Your task to perform on an android device: Go to Reddit.com Image 0: 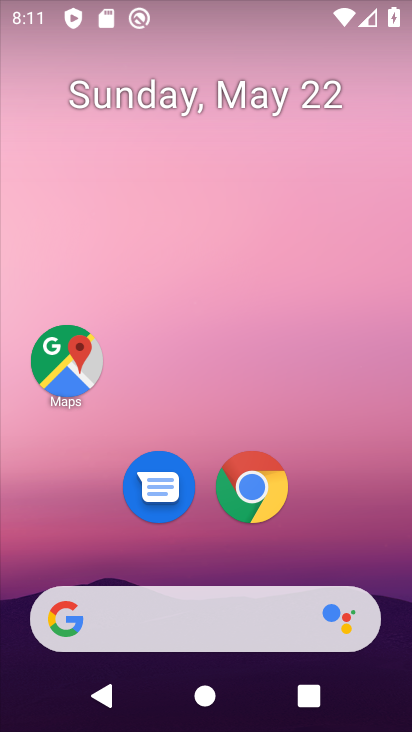
Step 0: click (133, 613)
Your task to perform on an android device: Go to Reddit.com Image 1: 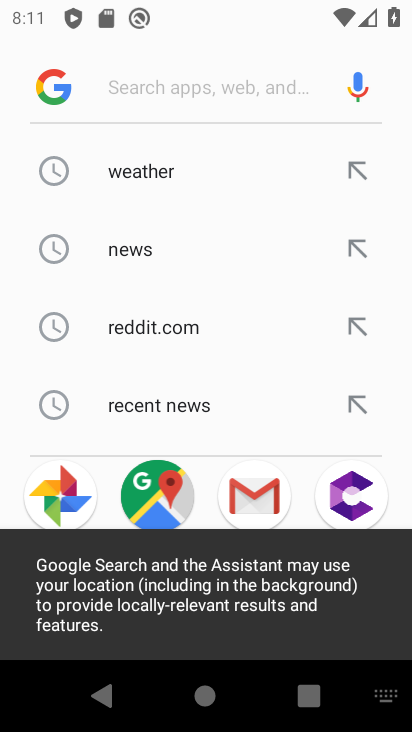
Step 1: click (254, 344)
Your task to perform on an android device: Go to Reddit.com Image 2: 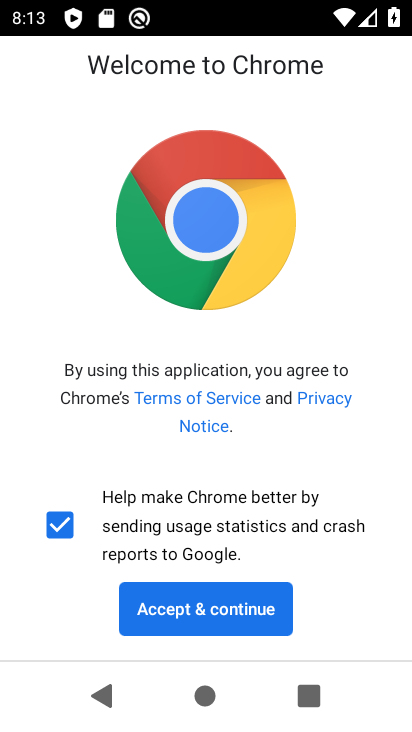
Step 2: click (219, 616)
Your task to perform on an android device: Go to Reddit.com Image 3: 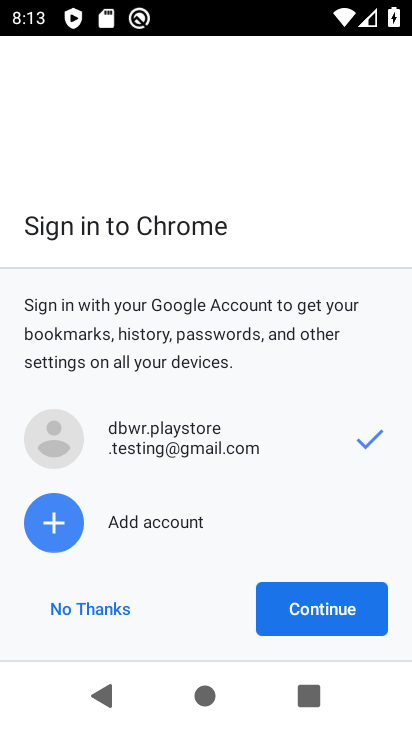
Step 3: click (310, 629)
Your task to perform on an android device: Go to Reddit.com Image 4: 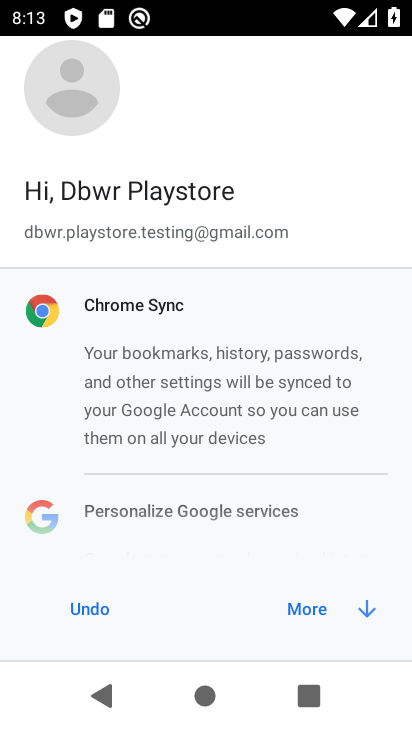
Step 4: click (303, 616)
Your task to perform on an android device: Go to Reddit.com Image 5: 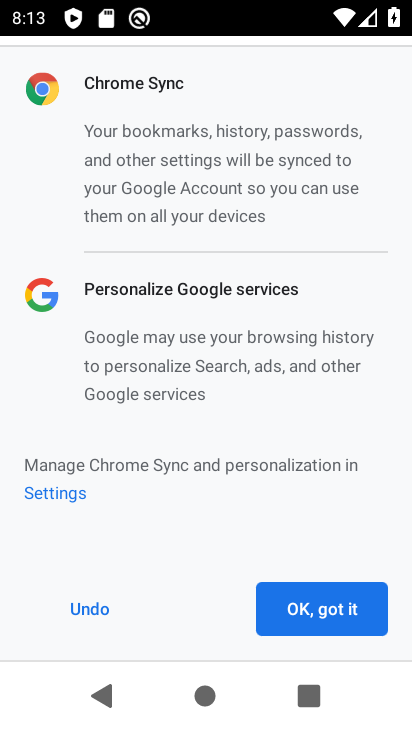
Step 5: click (303, 616)
Your task to perform on an android device: Go to Reddit.com Image 6: 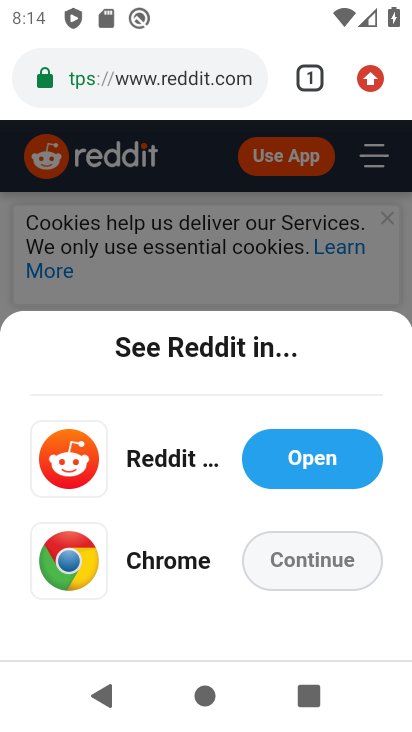
Step 6: task complete